Your task to perform on an android device: Open accessibility settings Image 0: 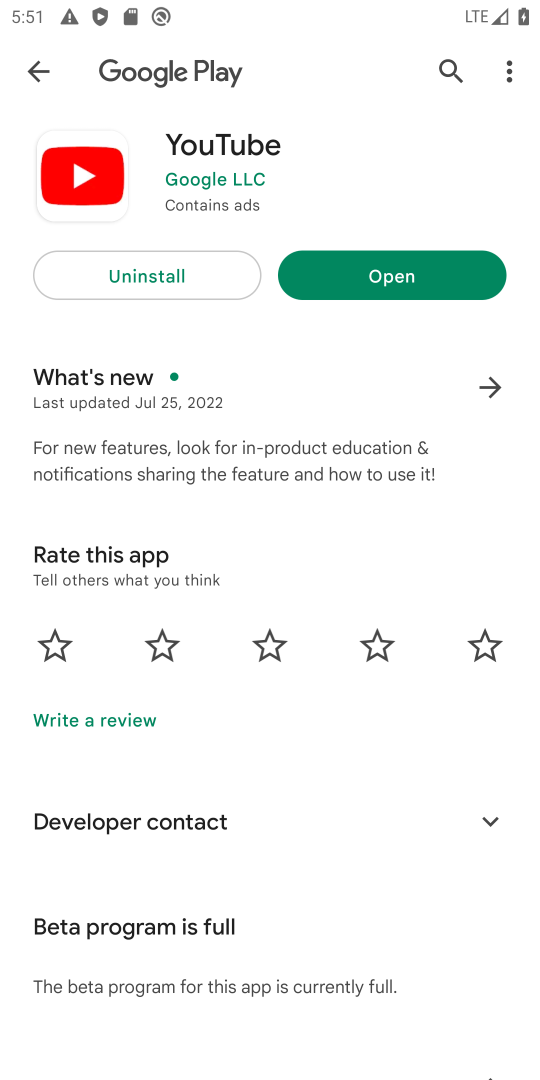
Step 0: press home button
Your task to perform on an android device: Open accessibility settings Image 1: 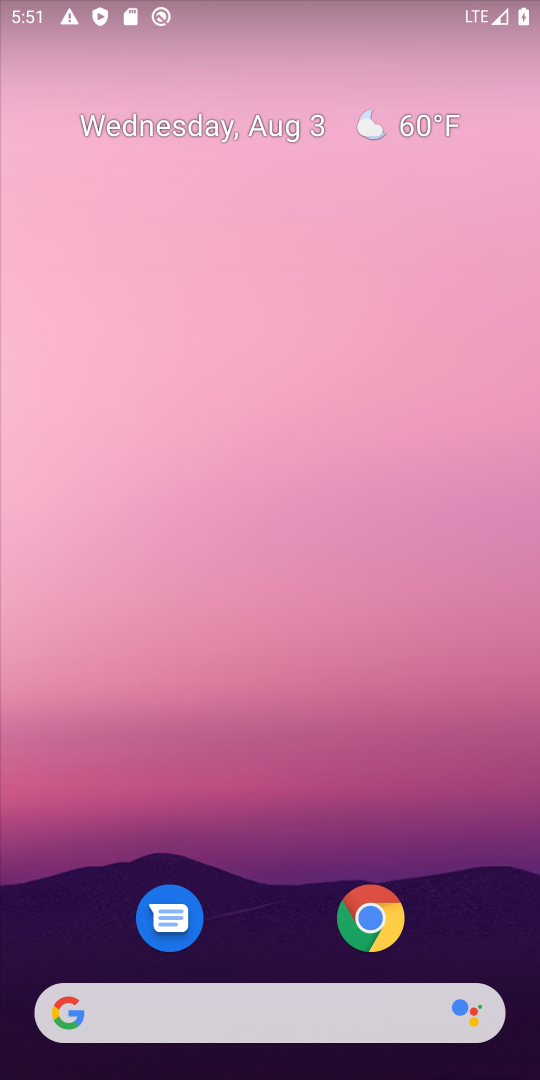
Step 1: drag from (217, 1018) to (394, 193)
Your task to perform on an android device: Open accessibility settings Image 2: 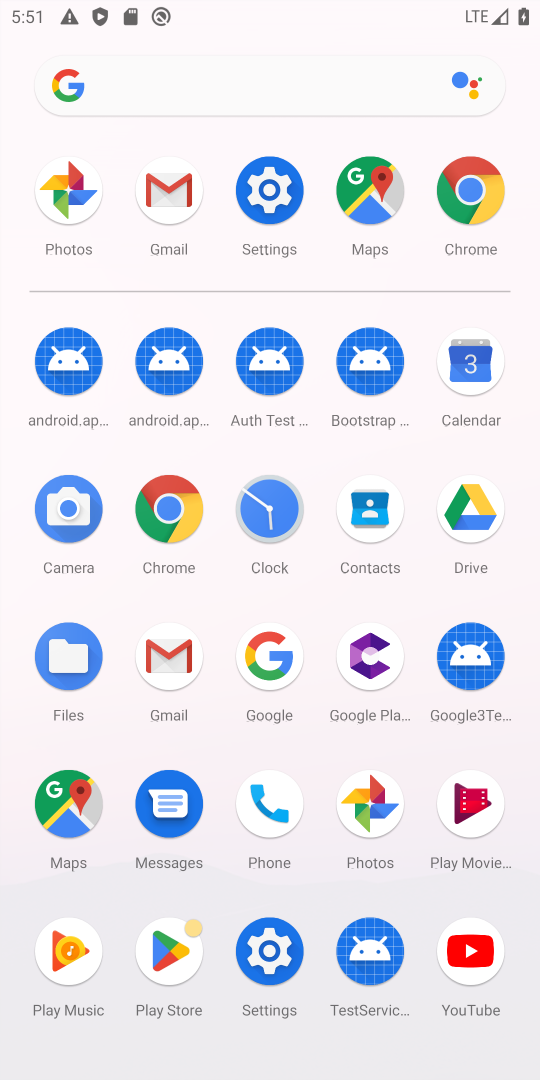
Step 2: click (287, 195)
Your task to perform on an android device: Open accessibility settings Image 3: 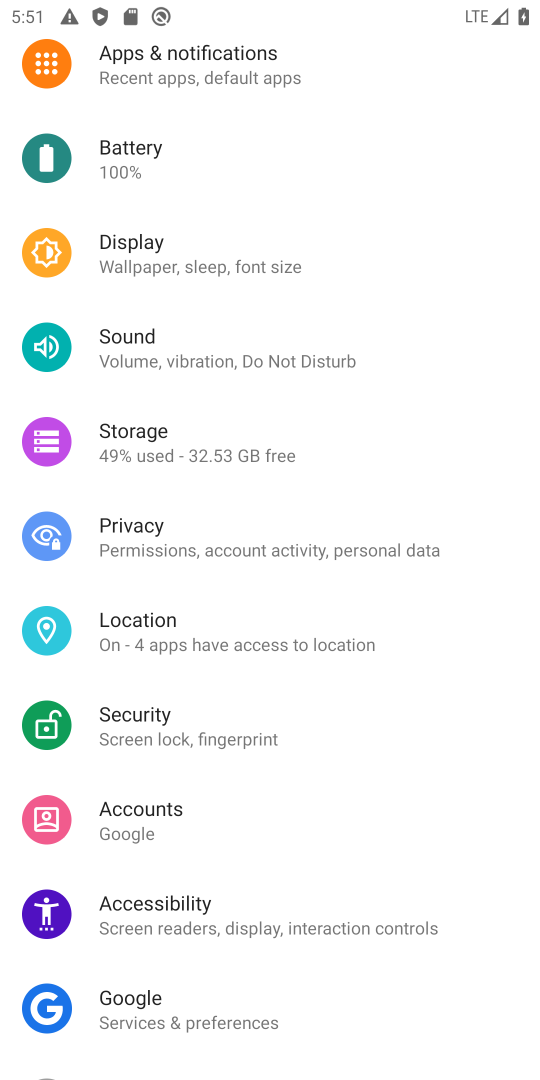
Step 3: click (154, 911)
Your task to perform on an android device: Open accessibility settings Image 4: 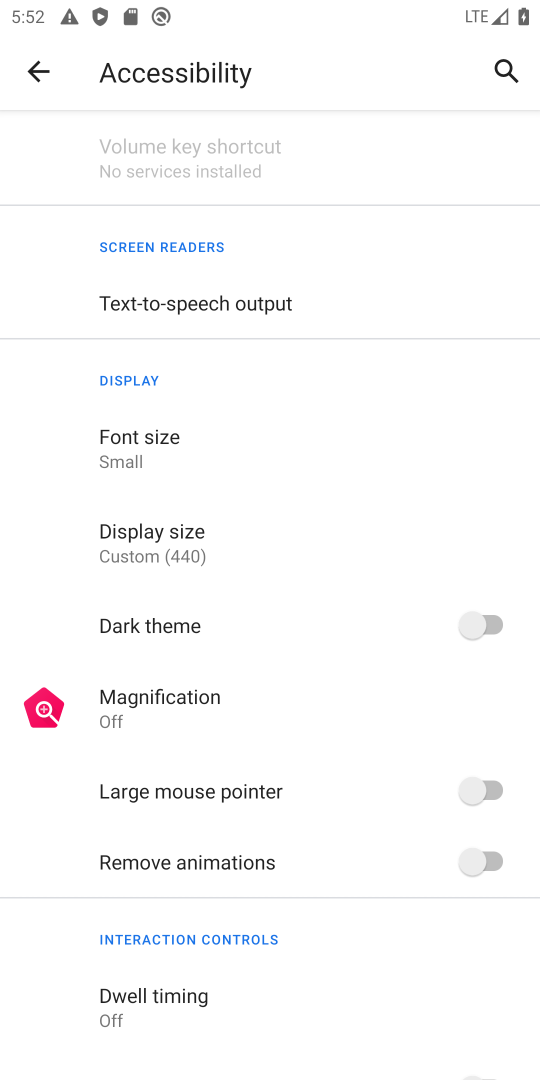
Step 4: task complete